Your task to perform on an android device: Go to Yahoo.com Image 0: 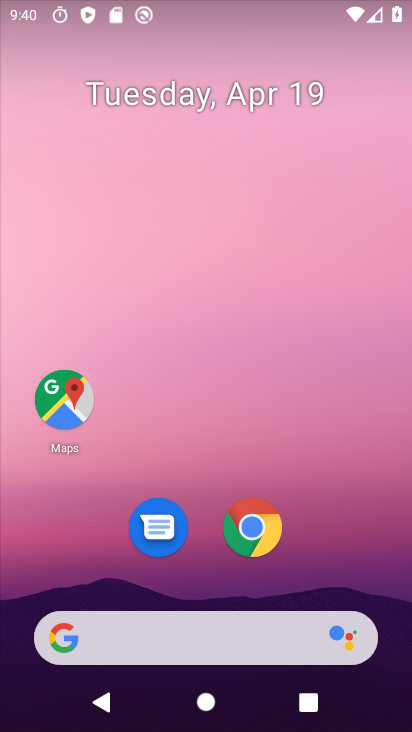
Step 0: drag from (238, 655) to (287, 183)
Your task to perform on an android device: Go to Yahoo.com Image 1: 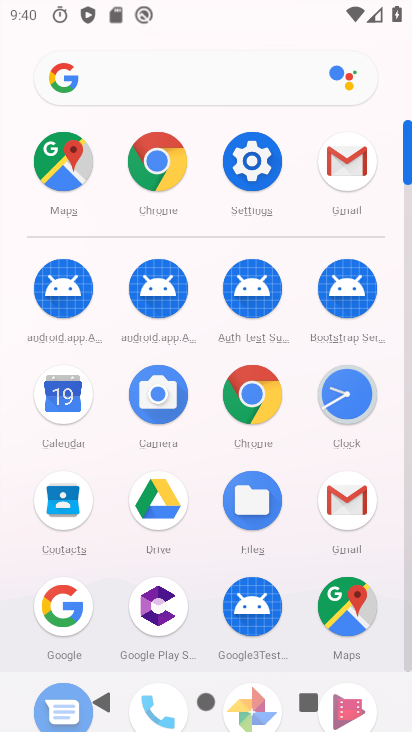
Step 1: click (146, 176)
Your task to perform on an android device: Go to Yahoo.com Image 2: 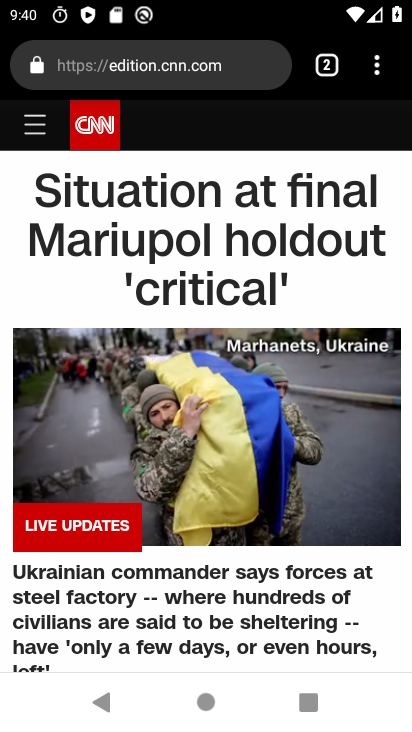
Step 2: click (218, 53)
Your task to perform on an android device: Go to Yahoo.com Image 3: 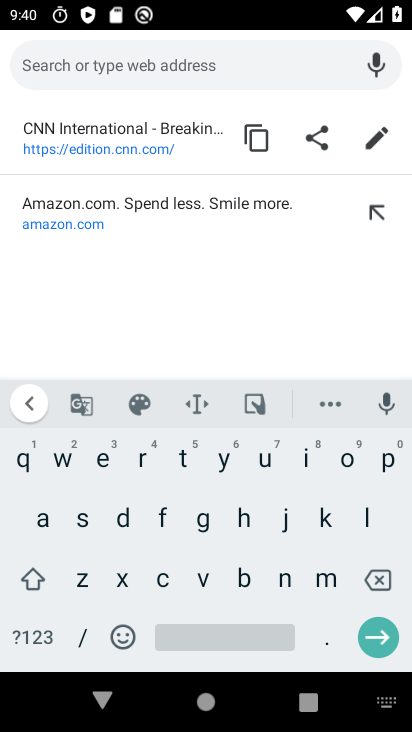
Step 3: click (223, 484)
Your task to perform on an android device: Go to Yahoo.com Image 4: 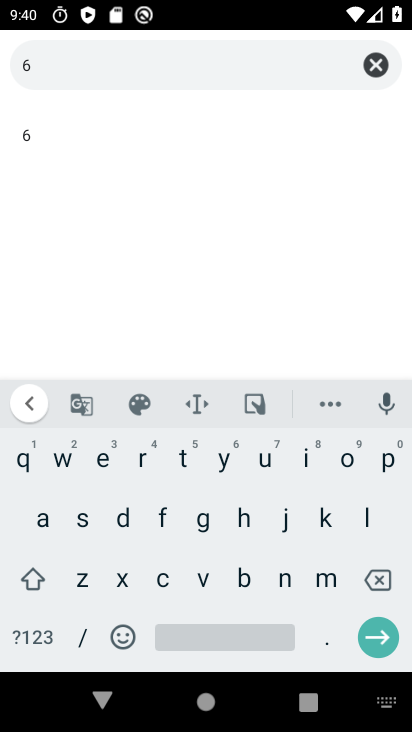
Step 4: click (383, 574)
Your task to perform on an android device: Go to Yahoo.com Image 5: 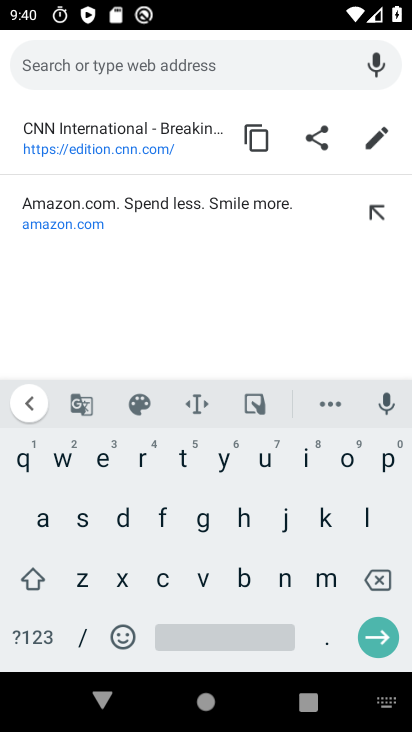
Step 5: click (219, 466)
Your task to perform on an android device: Go to Yahoo.com Image 6: 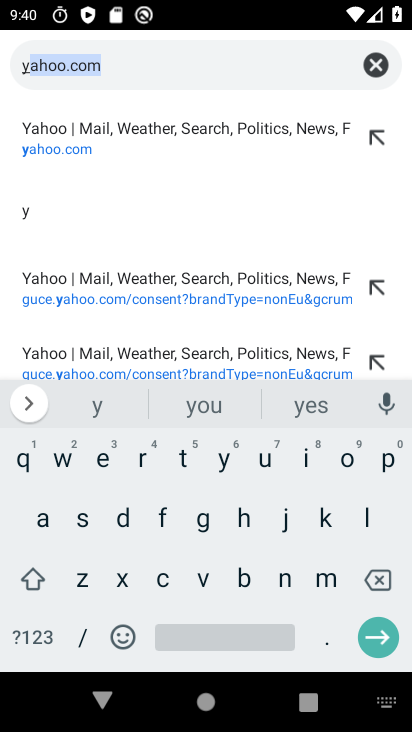
Step 6: click (147, 58)
Your task to perform on an android device: Go to Yahoo.com Image 7: 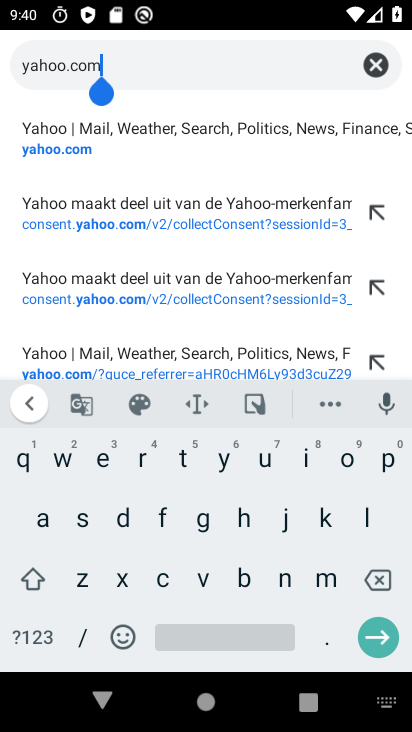
Step 7: click (381, 636)
Your task to perform on an android device: Go to Yahoo.com Image 8: 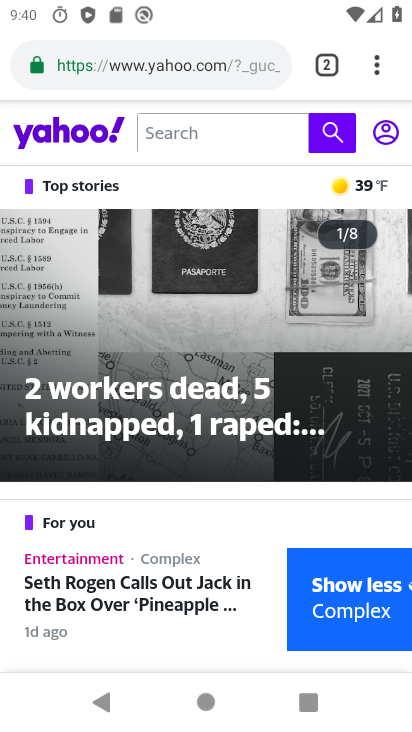
Step 8: task complete